Your task to perform on an android device: clear all cookies in the chrome app Image 0: 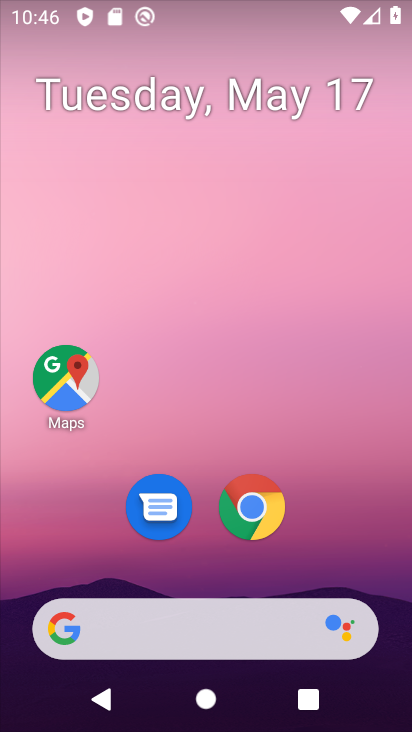
Step 0: drag from (348, 546) to (344, 87)
Your task to perform on an android device: clear all cookies in the chrome app Image 1: 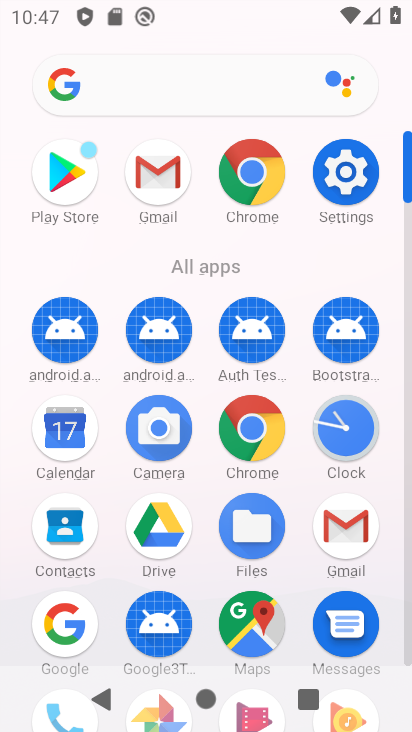
Step 1: click (251, 423)
Your task to perform on an android device: clear all cookies in the chrome app Image 2: 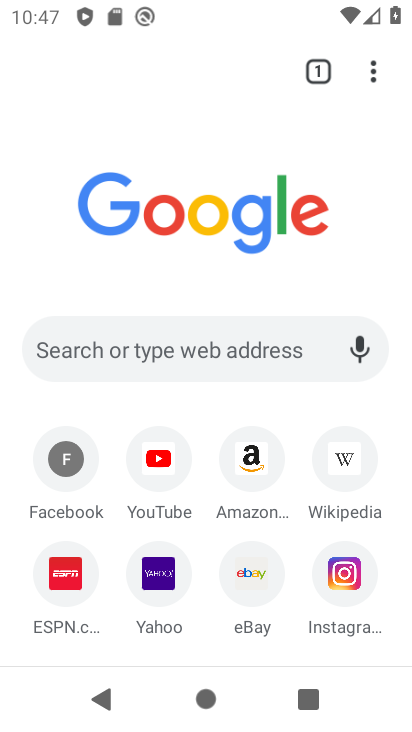
Step 2: drag from (374, 84) to (180, 402)
Your task to perform on an android device: clear all cookies in the chrome app Image 3: 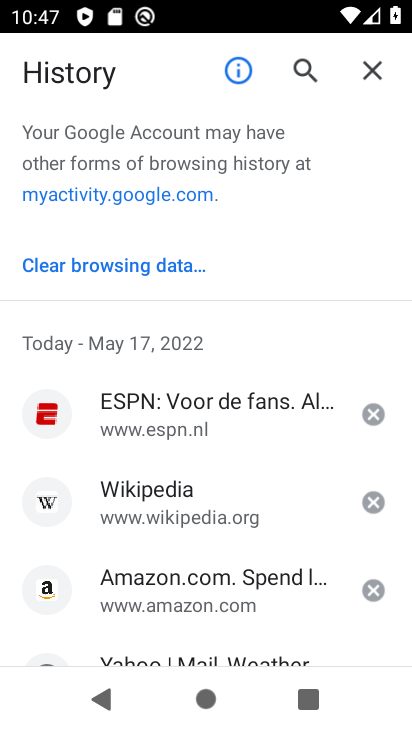
Step 3: click (170, 269)
Your task to perform on an android device: clear all cookies in the chrome app Image 4: 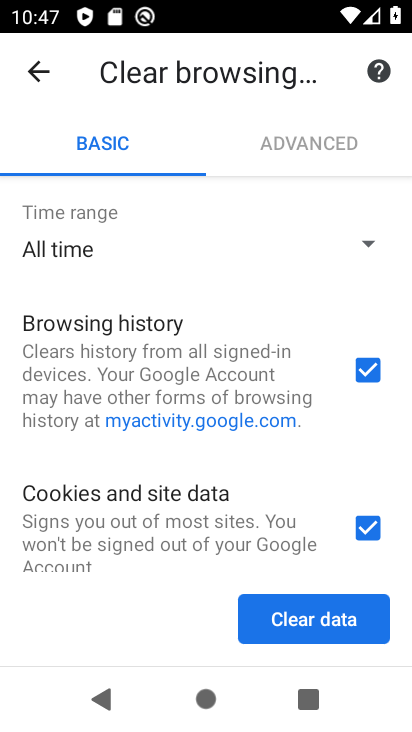
Step 4: click (306, 623)
Your task to perform on an android device: clear all cookies in the chrome app Image 5: 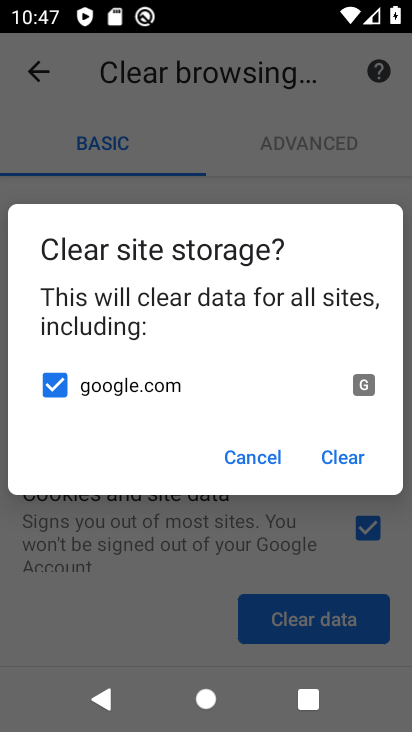
Step 5: click (343, 459)
Your task to perform on an android device: clear all cookies in the chrome app Image 6: 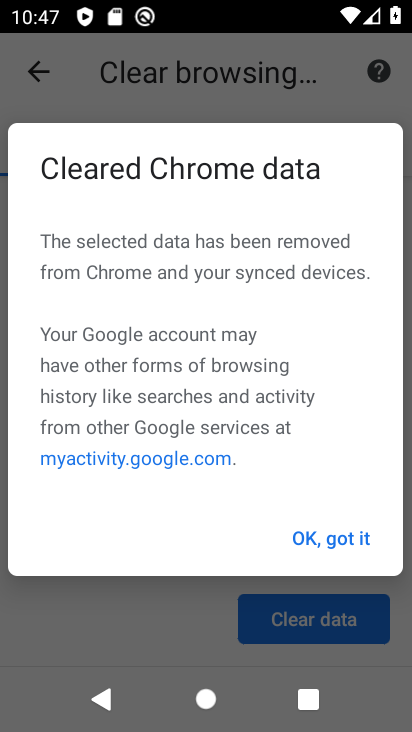
Step 6: click (343, 538)
Your task to perform on an android device: clear all cookies in the chrome app Image 7: 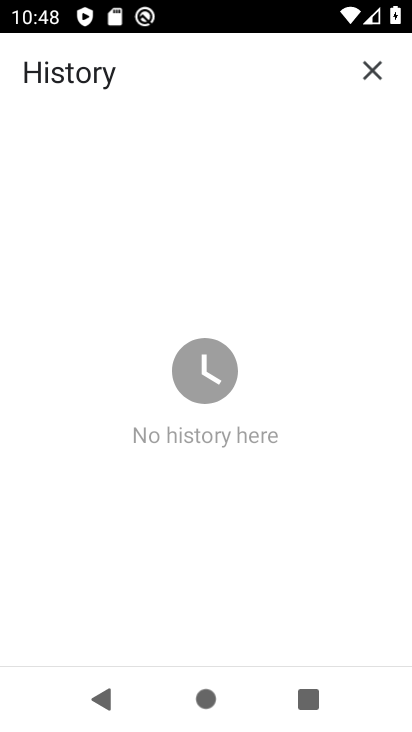
Step 7: task complete